Your task to perform on an android device: open a bookmark in the chrome app Image 0: 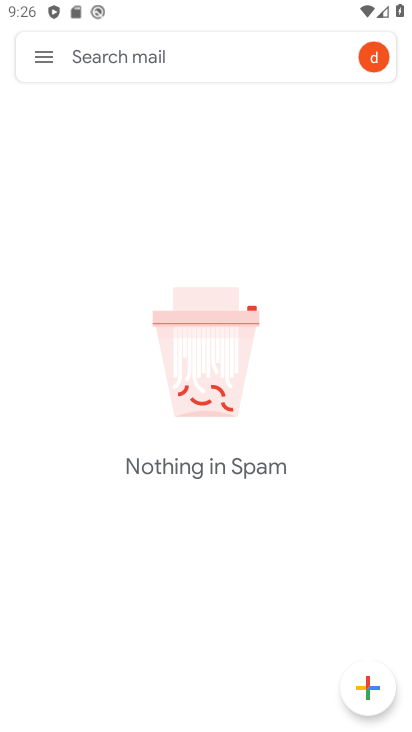
Step 0: press home button
Your task to perform on an android device: open a bookmark in the chrome app Image 1: 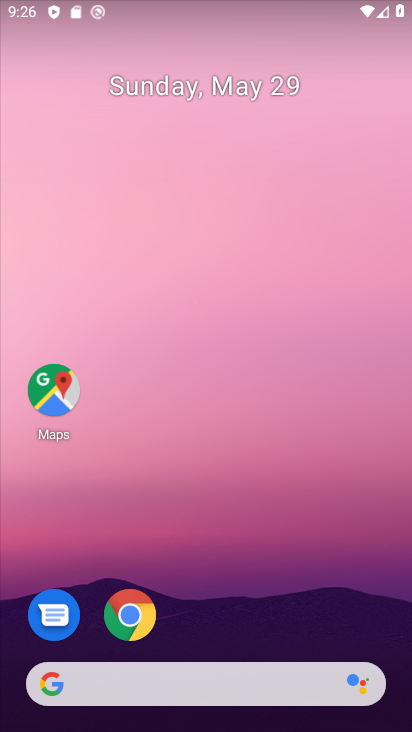
Step 1: click (124, 613)
Your task to perform on an android device: open a bookmark in the chrome app Image 2: 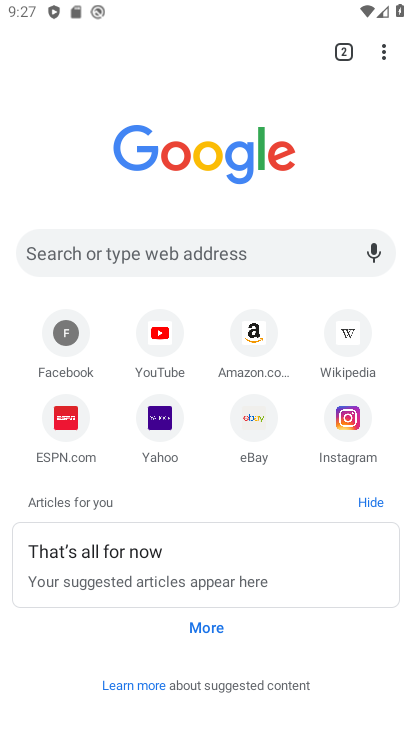
Step 2: task complete